Your task to perform on an android device: open device folders in google photos Image 0: 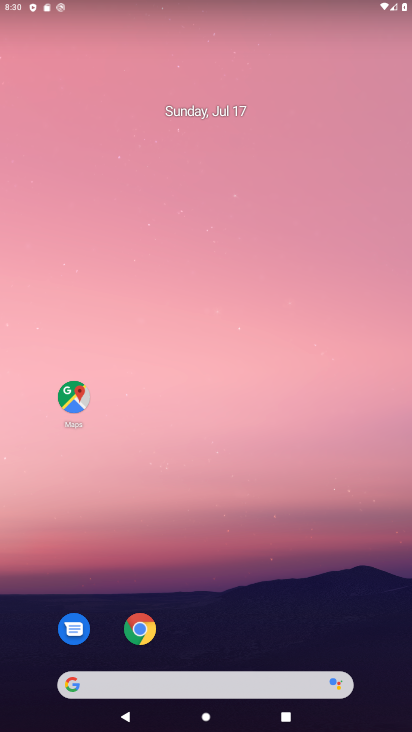
Step 0: drag from (221, 648) to (296, 3)
Your task to perform on an android device: open device folders in google photos Image 1: 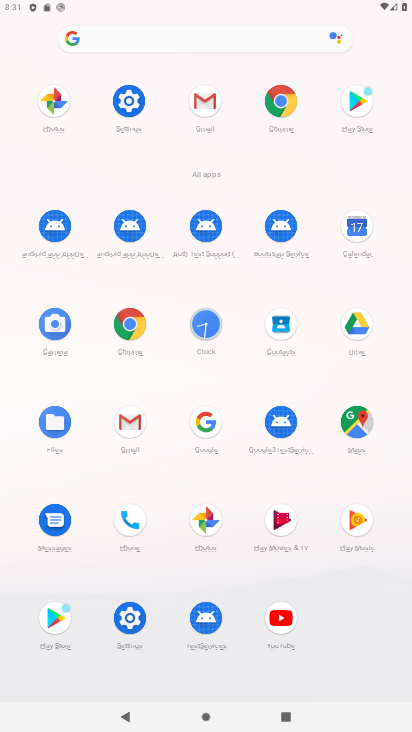
Step 1: click (204, 518)
Your task to perform on an android device: open device folders in google photos Image 2: 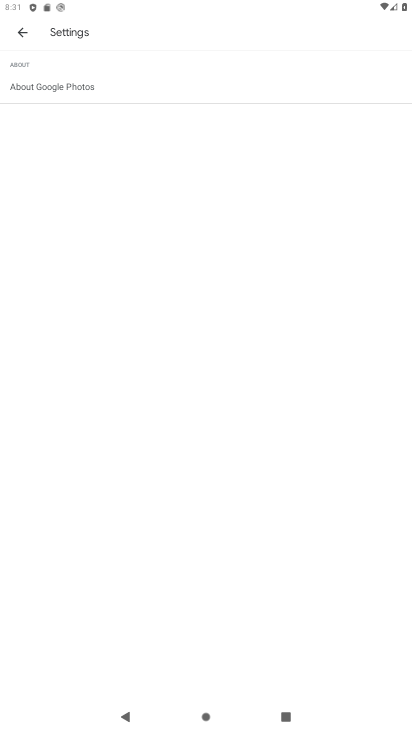
Step 2: click (23, 33)
Your task to perform on an android device: open device folders in google photos Image 3: 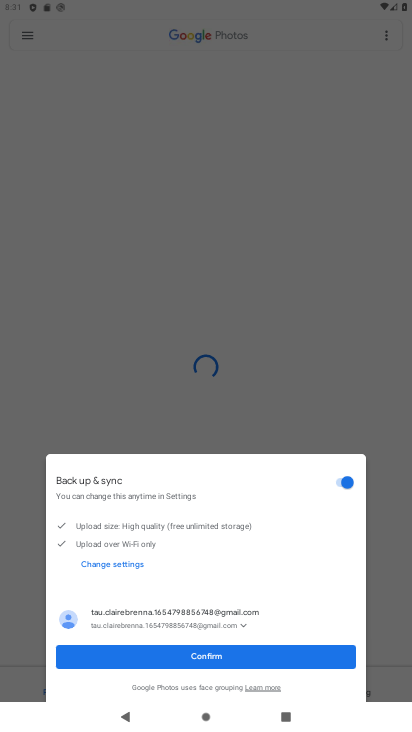
Step 3: click (208, 654)
Your task to perform on an android device: open device folders in google photos Image 4: 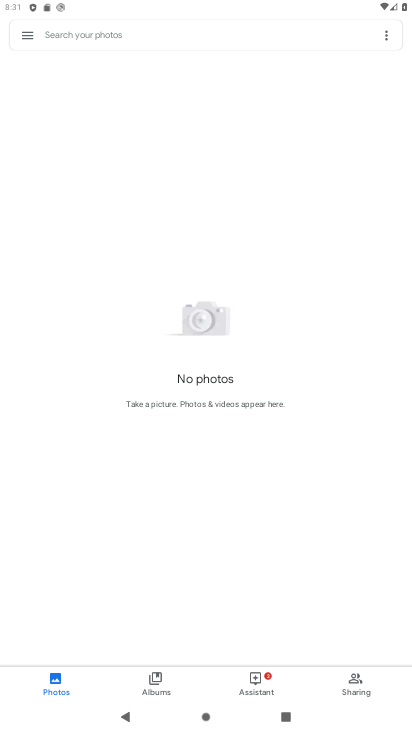
Step 4: click (29, 35)
Your task to perform on an android device: open device folders in google photos Image 5: 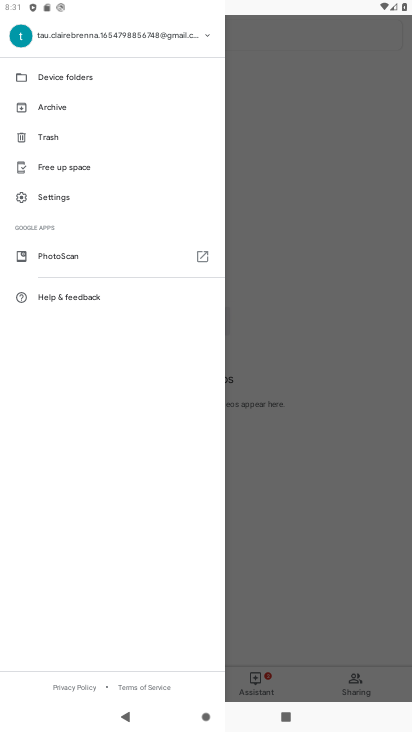
Step 5: click (66, 69)
Your task to perform on an android device: open device folders in google photos Image 6: 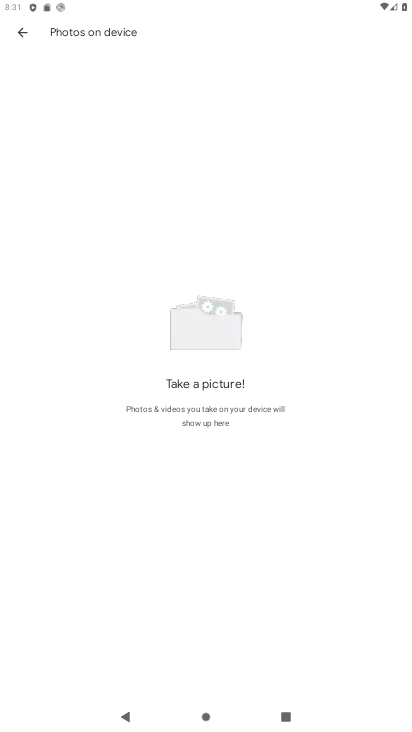
Step 6: task complete